Your task to perform on an android device: move an email to a new category in the gmail app Image 0: 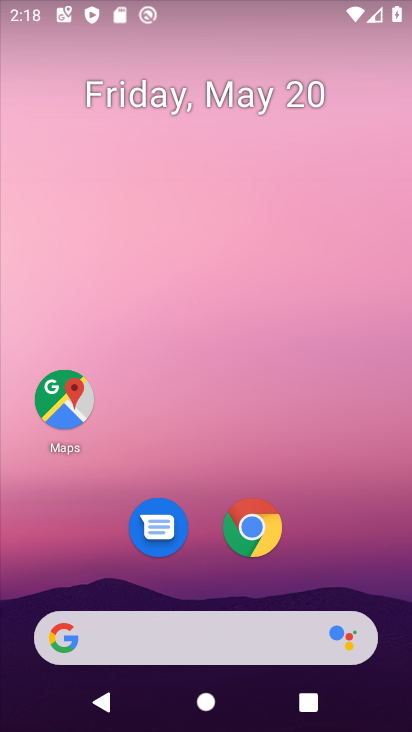
Step 0: drag from (248, 698) to (271, 182)
Your task to perform on an android device: move an email to a new category in the gmail app Image 1: 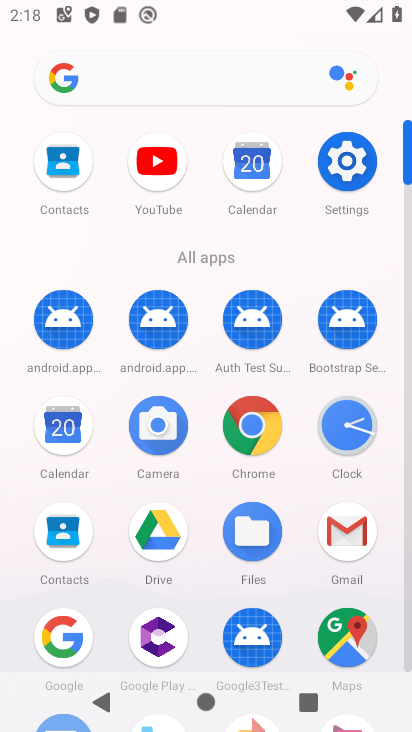
Step 1: click (339, 531)
Your task to perform on an android device: move an email to a new category in the gmail app Image 2: 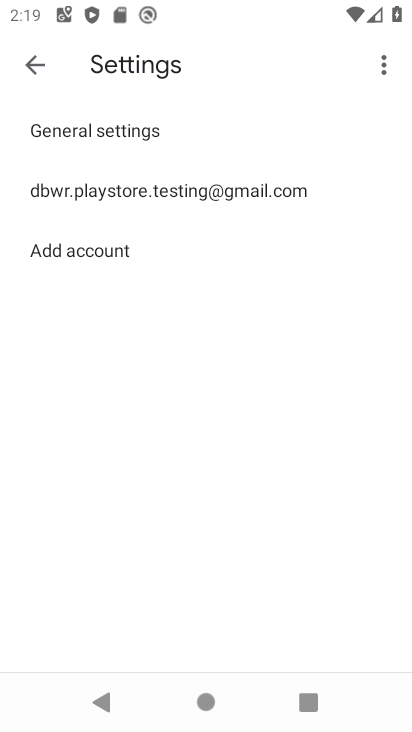
Step 2: click (120, 188)
Your task to perform on an android device: move an email to a new category in the gmail app Image 3: 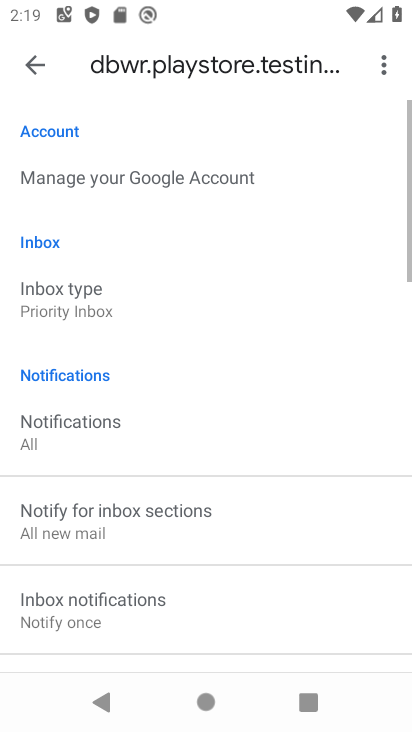
Step 3: click (46, 66)
Your task to perform on an android device: move an email to a new category in the gmail app Image 4: 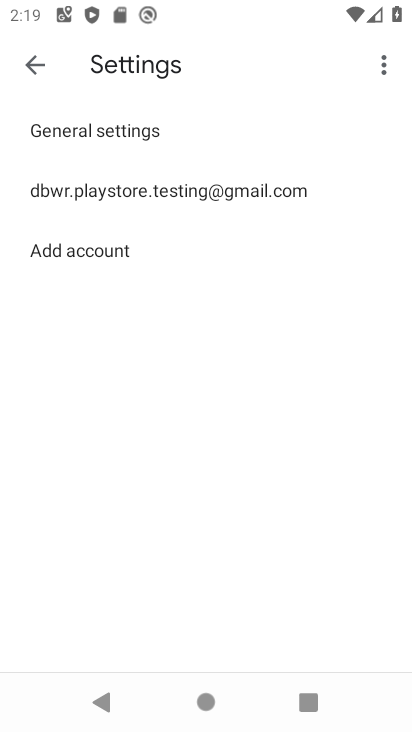
Step 4: click (46, 66)
Your task to perform on an android device: move an email to a new category in the gmail app Image 5: 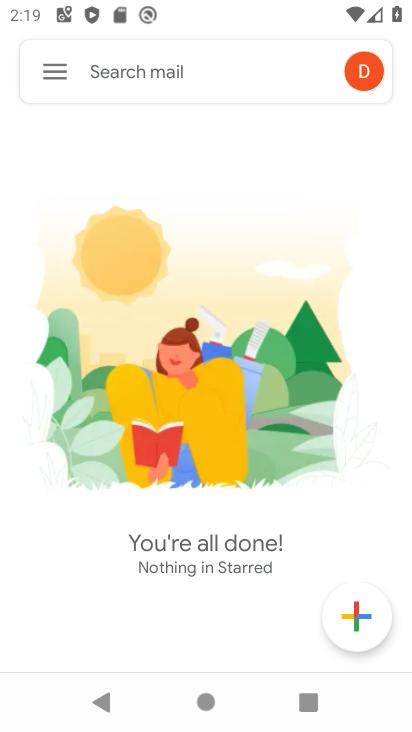
Step 5: task complete